Your task to perform on an android device: Check the weather Image 0: 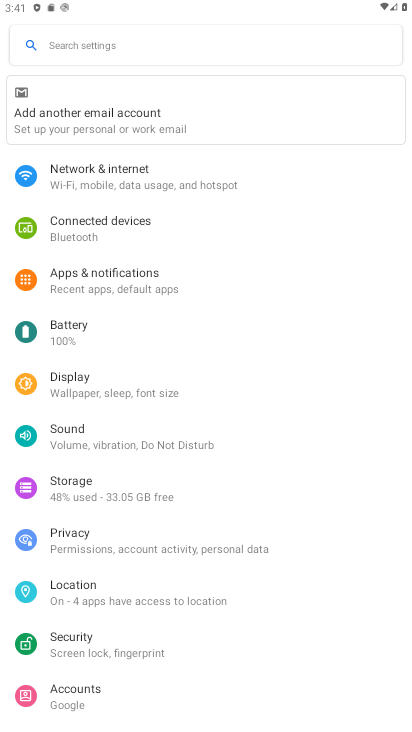
Step 0: press home button
Your task to perform on an android device: Check the weather Image 1: 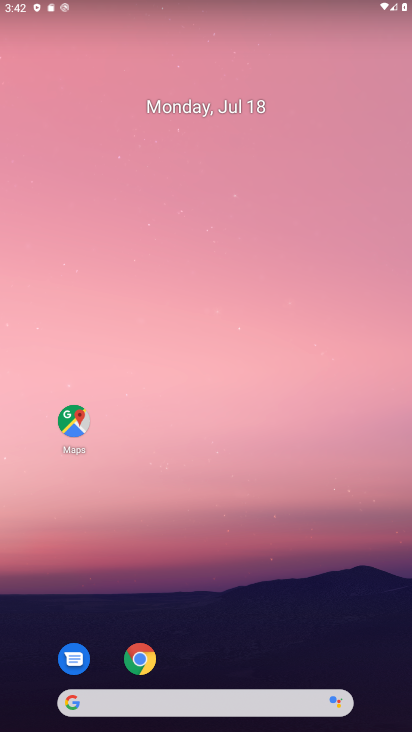
Step 1: drag from (217, 693) to (276, 242)
Your task to perform on an android device: Check the weather Image 2: 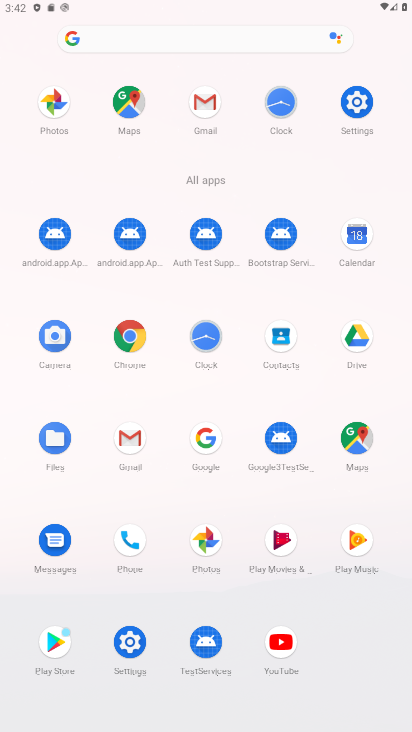
Step 2: click (132, 341)
Your task to perform on an android device: Check the weather Image 3: 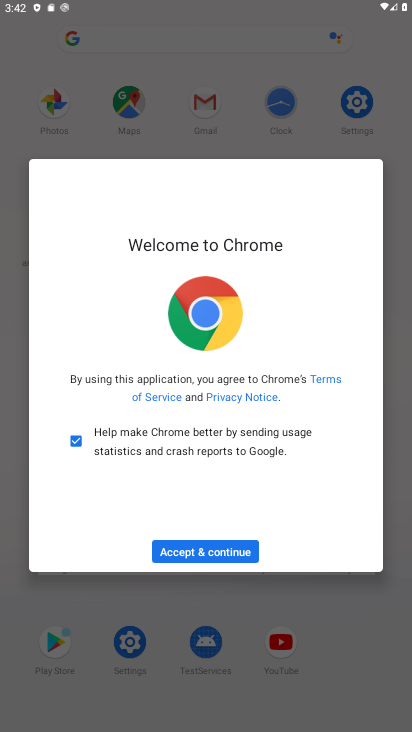
Step 3: click (207, 543)
Your task to perform on an android device: Check the weather Image 4: 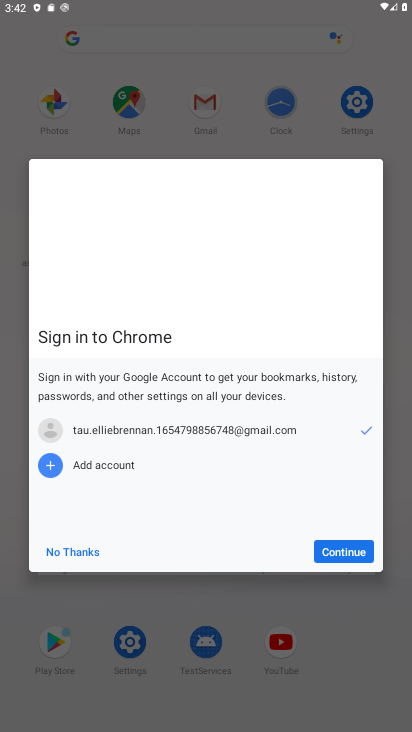
Step 4: click (75, 552)
Your task to perform on an android device: Check the weather Image 5: 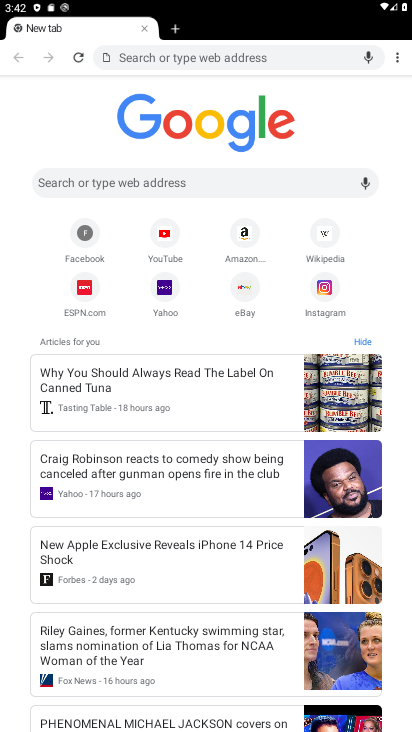
Step 5: type "check the weather"
Your task to perform on an android device: Check the weather Image 6: 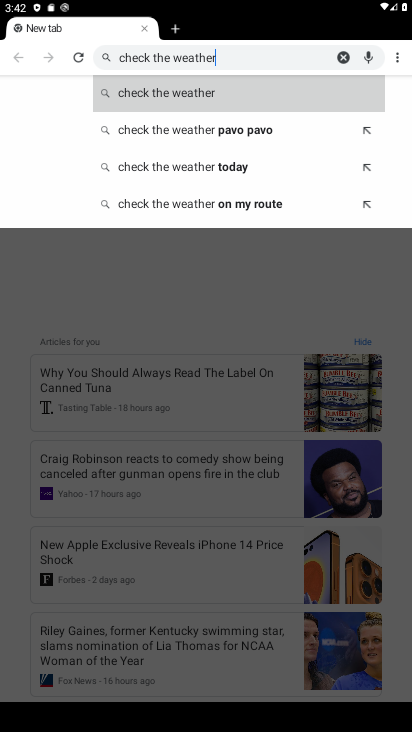
Step 6: click (308, 95)
Your task to perform on an android device: Check the weather Image 7: 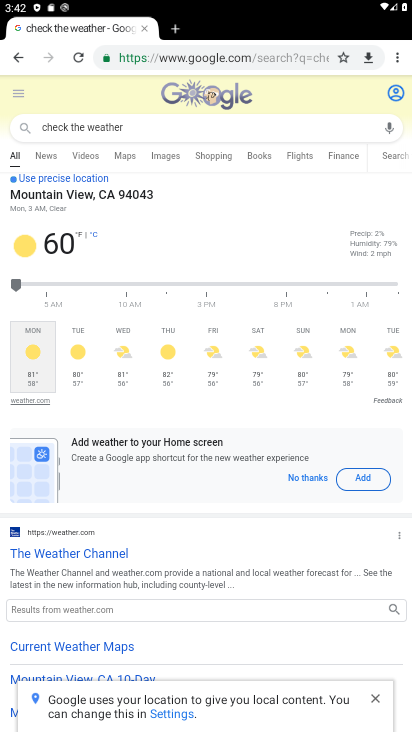
Step 7: task complete